Your task to perform on an android device: Go to display settings Image 0: 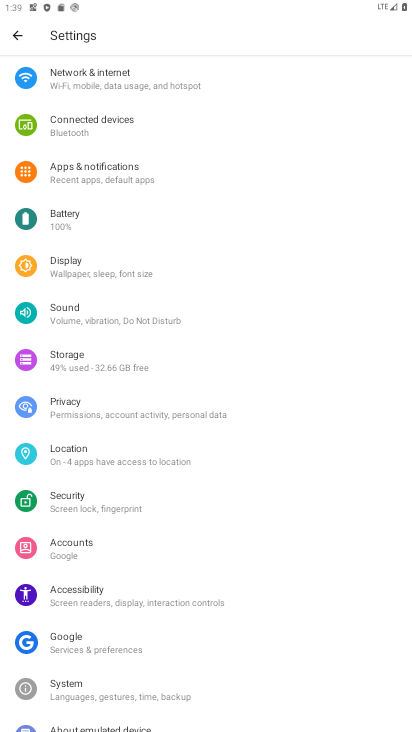
Step 0: click (55, 270)
Your task to perform on an android device: Go to display settings Image 1: 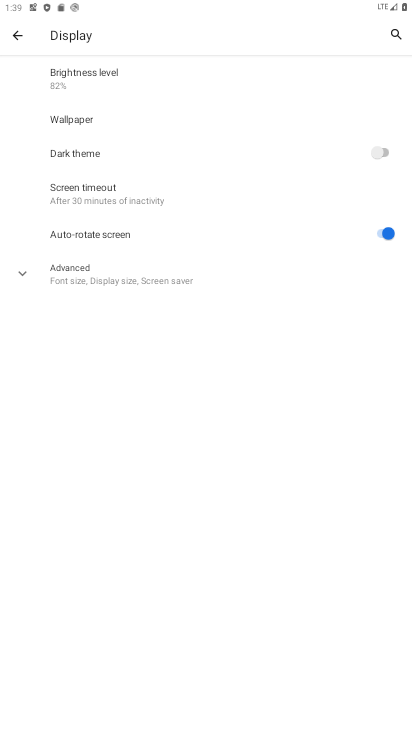
Step 1: task complete